Your task to perform on an android device: toggle airplane mode Image 0: 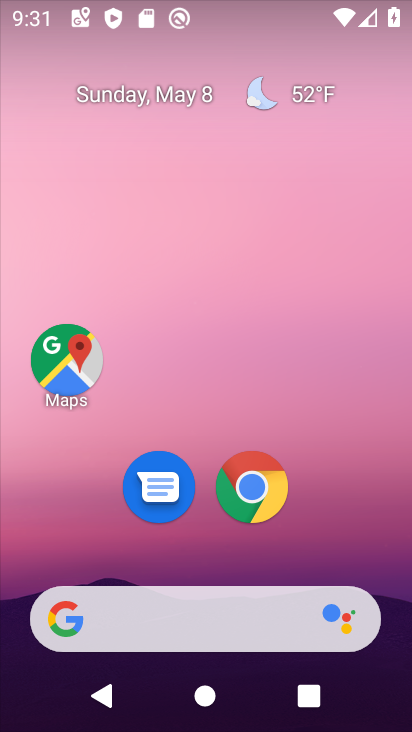
Step 0: drag from (280, 10) to (304, 465)
Your task to perform on an android device: toggle airplane mode Image 1: 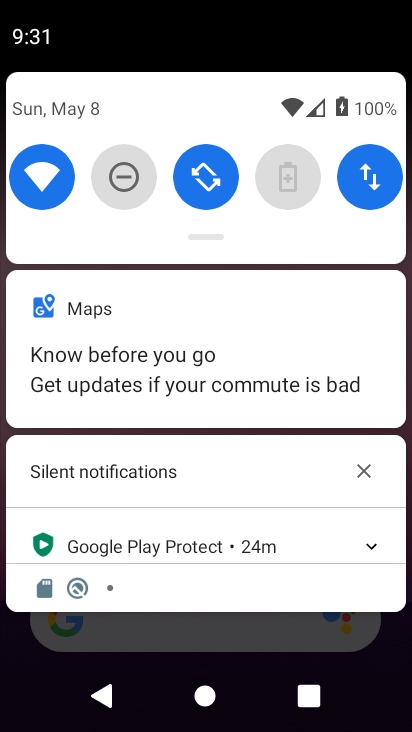
Step 1: drag from (282, 234) to (281, 603)
Your task to perform on an android device: toggle airplane mode Image 2: 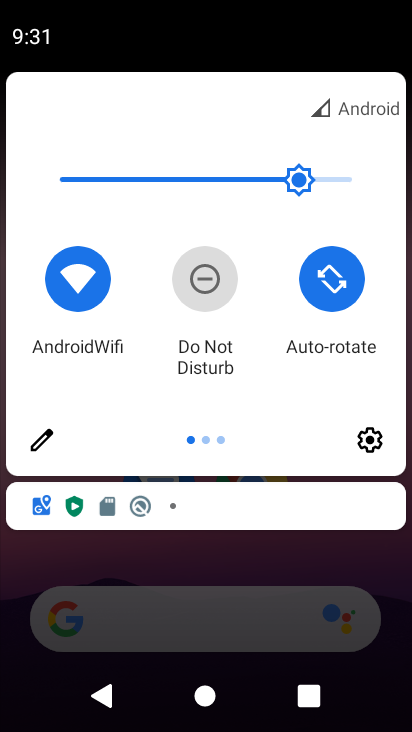
Step 2: drag from (330, 379) to (1, 308)
Your task to perform on an android device: toggle airplane mode Image 3: 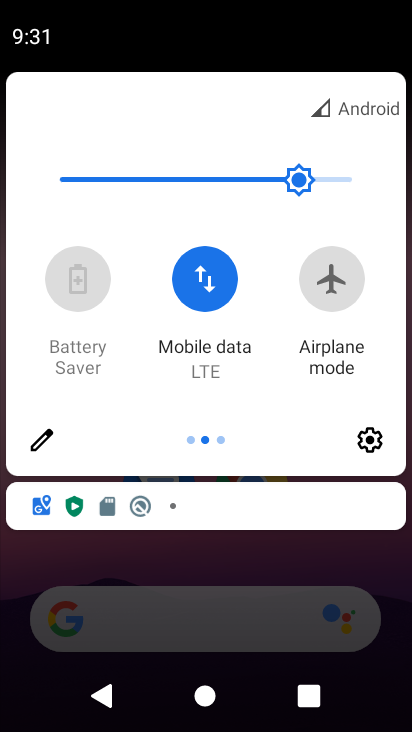
Step 3: click (341, 307)
Your task to perform on an android device: toggle airplane mode Image 4: 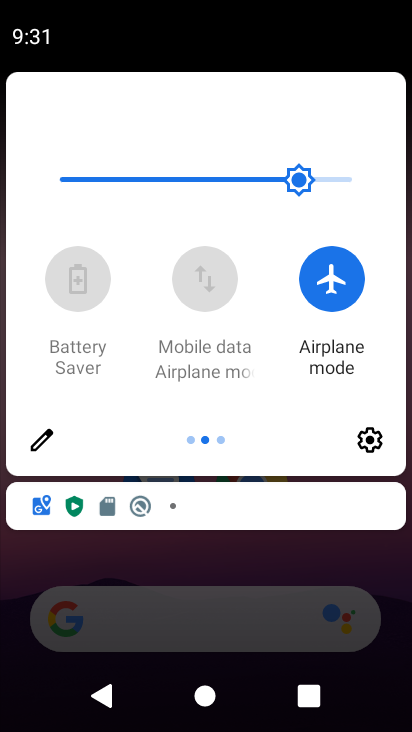
Step 4: task complete